Your task to perform on an android device: toggle sleep mode Image 0: 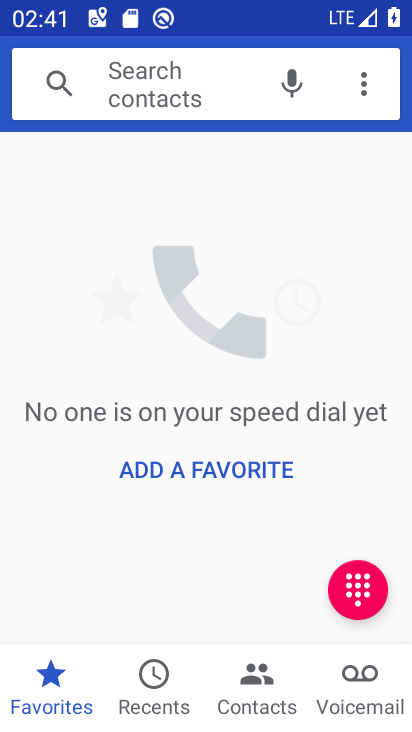
Step 0: press home button
Your task to perform on an android device: toggle sleep mode Image 1: 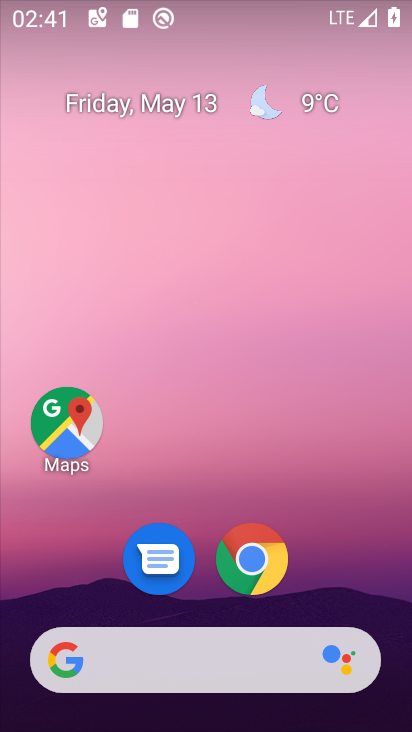
Step 1: drag from (398, 560) to (386, 336)
Your task to perform on an android device: toggle sleep mode Image 2: 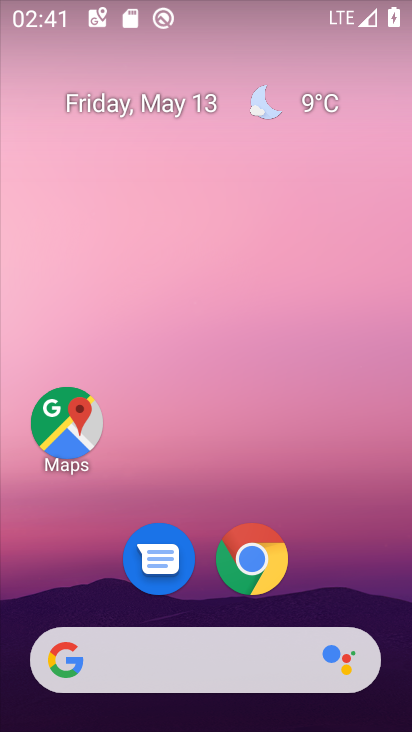
Step 2: drag from (394, 640) to (370, 217)
Your task to perform on an android device: toggle sleep mode Image 3: 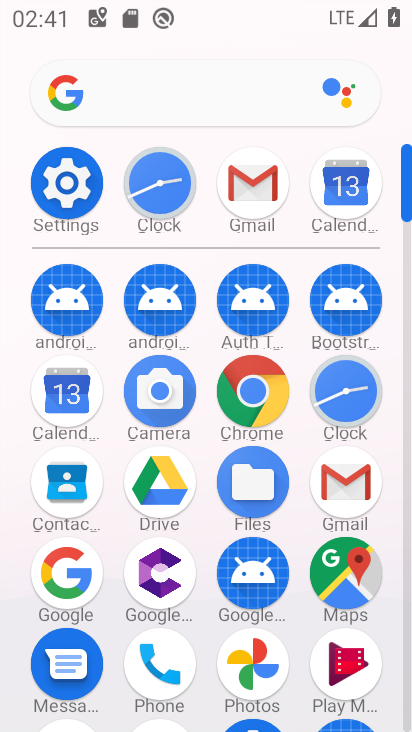
Step 3: click (47, 193)
Your task to perform on an android device: toggle sleep mode Image 4: 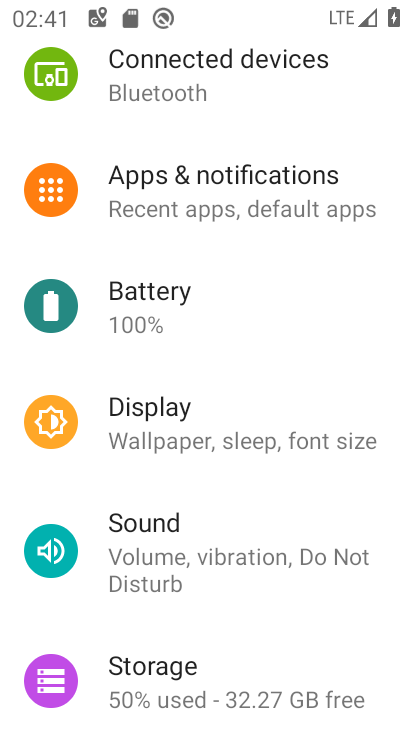
Step 4: click (190, 436)
Your task to perform on an android device: toggle sleep mode Image 5: 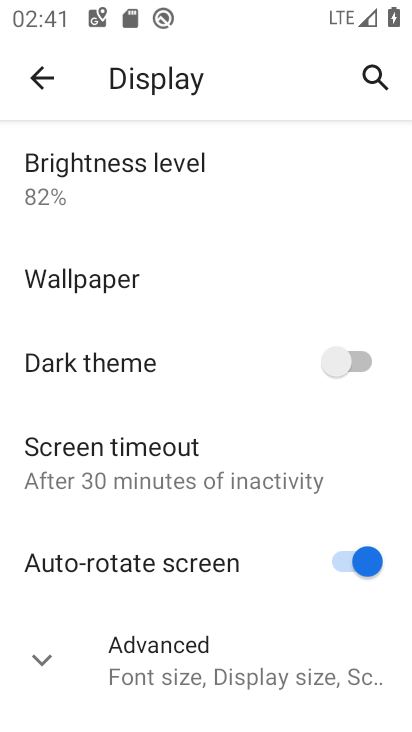
Step 5: click (143, 469)
Your task to perform on an android device: toggle sleep mode Image 6: 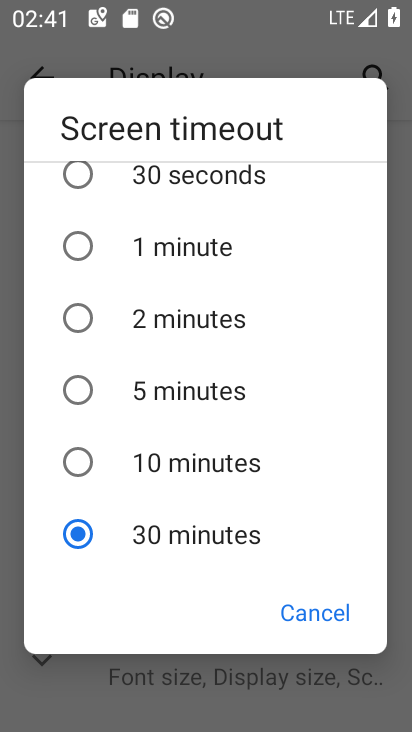
Step 6: click (77, 385)
Your task to perform on an android device: toggle sleep mode Image 7: 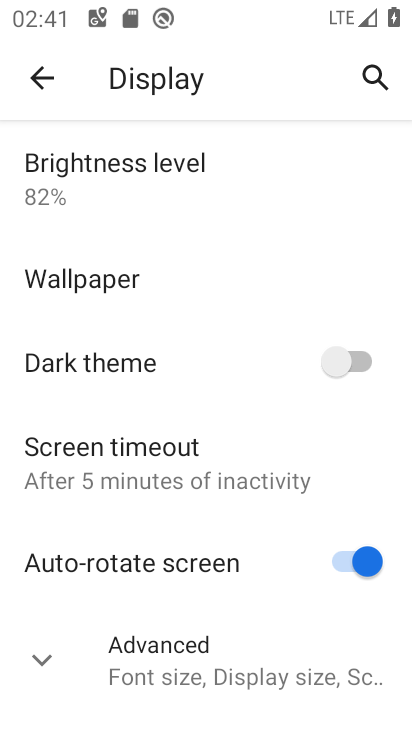
Step 7: task complete